Your task to perform on an android device: read, delete, or share a saved page in the chrome app Image 0: 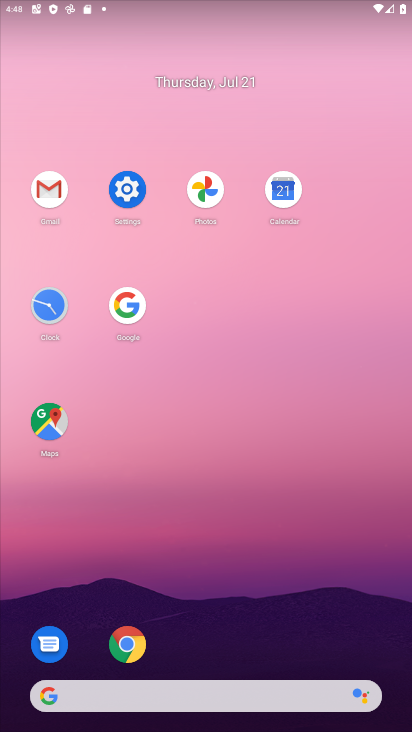
Step 0: click (138, 641)
Your task to perform on an android device: read, delete, or share a saved page in the chrome app Image 1: 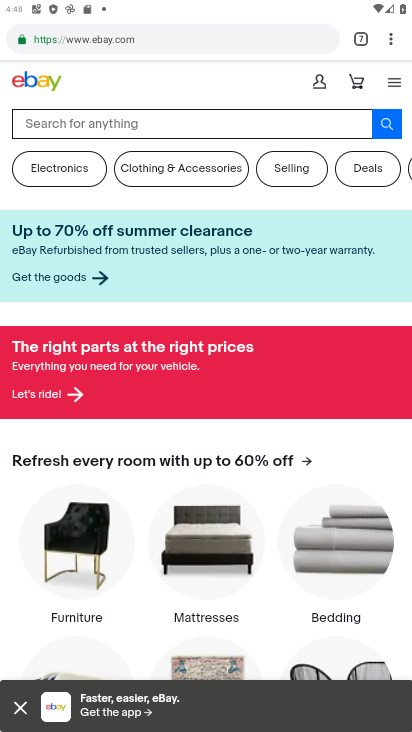
Step 1: click (389, 40)
Your task to perform on an android device: read, delete, or share a saved page in the chrome app Image 2: 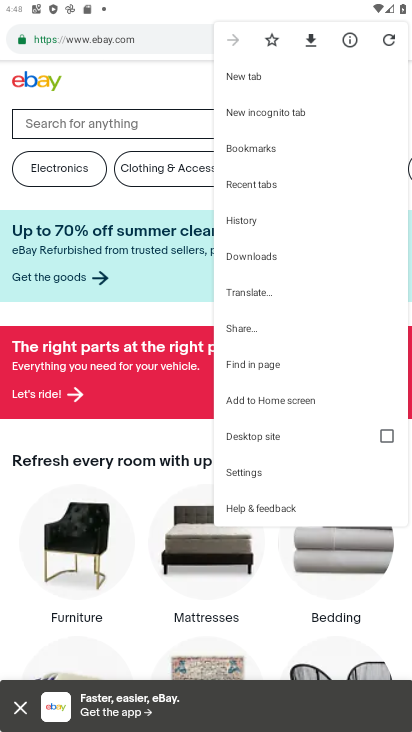
Step 2: click (296, 253)
Your task to perform on an android device: read, delete, or share a saved page in the chrome app Image 3: 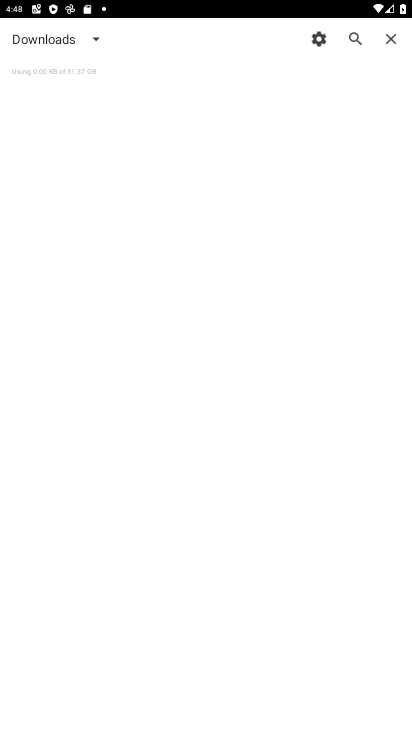
Step 3: task complete